Your task to perform on an android device: What's the weather today? Image 0: 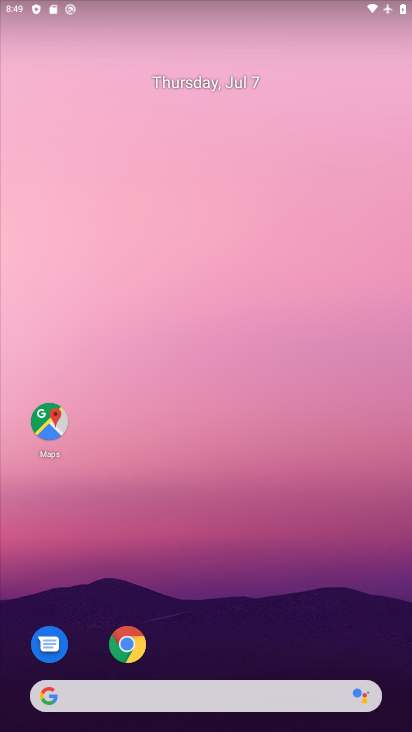
Step 0: drag from (291, 707) to (263, 85)
Your task to perform on an android device: What's the weather today? Image 1: 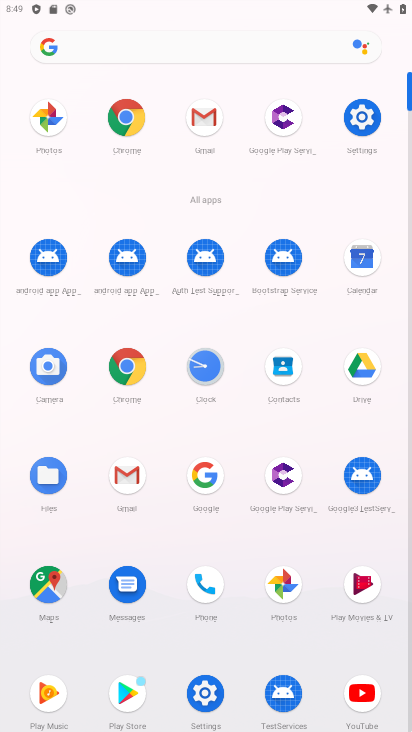
Step 1: click (125, 125)
Your task to perform on an android device: What's the weather today? Image 2: 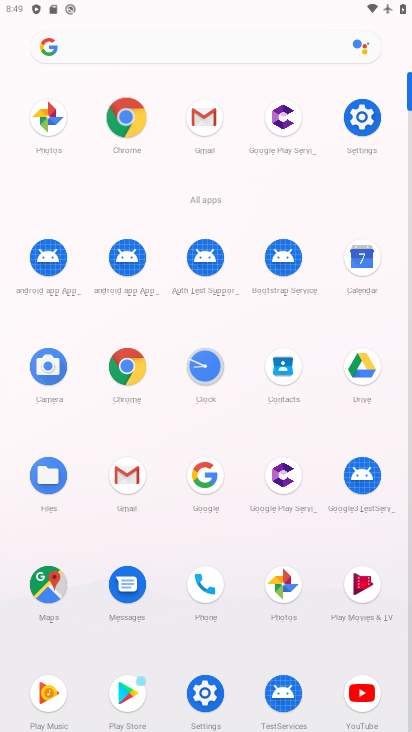
Step 2: click (130, 124)
Your task to perform on an android device: What's the weather today? Image 3: 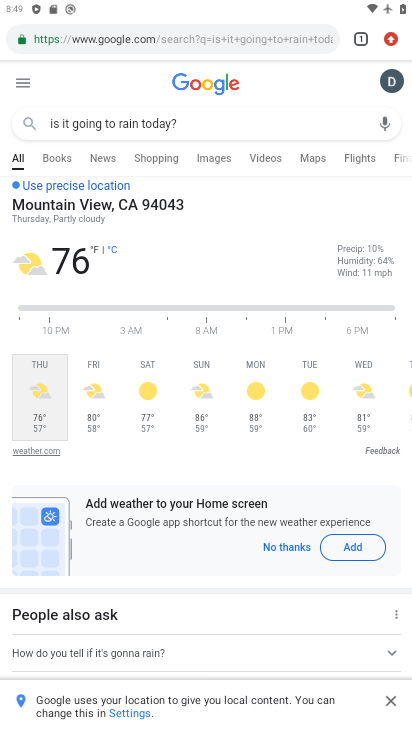
Step 3: click (187, 123)
Your task to perform on an android device: What's the weather today? Image 4: 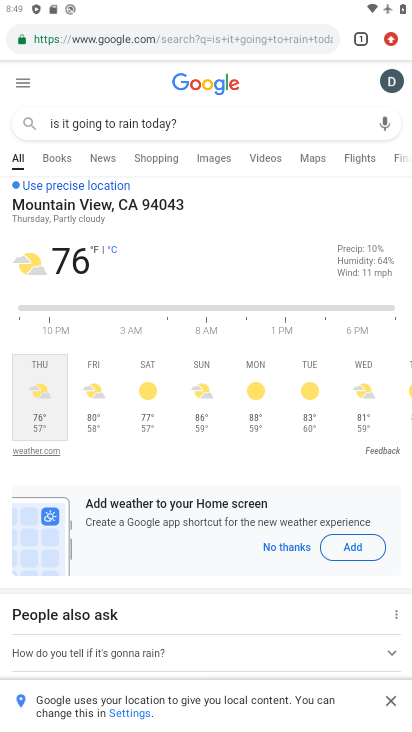
Step 4: click (172, 123)
Your task to perform on an android device: What's the weather today? Image 5: 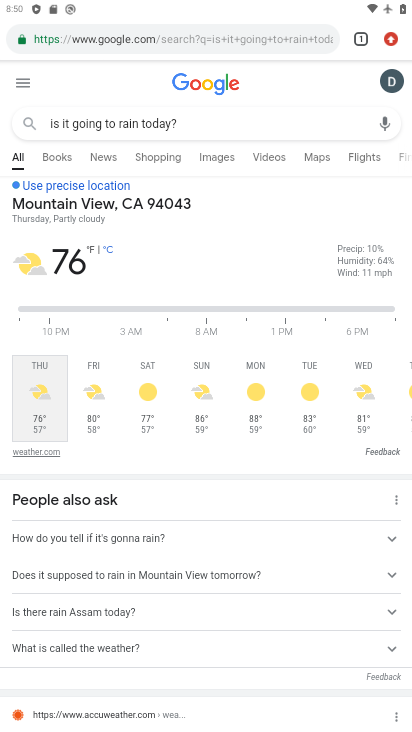
Step 5: type "whats the weather today?"
Your task to perform on an android device: What's the weather today? Image 6: 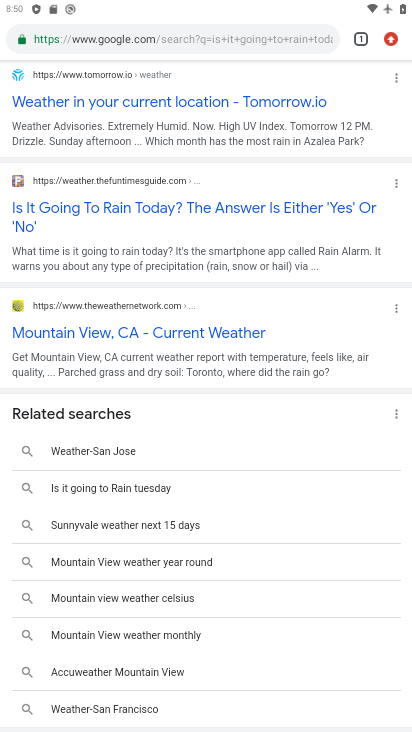
Step 6: click (154, 110)
Your task to perform on an android device: What's the weather today? Image 7: 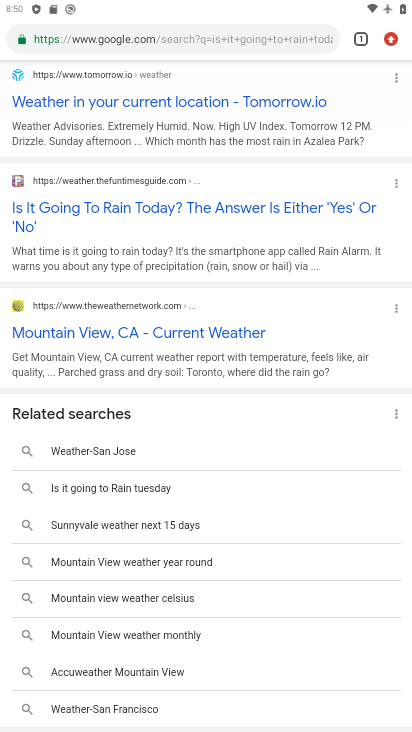
Step 7: click (155, 98)
Your task to perform on an android device: What's the weather today? Image 8: 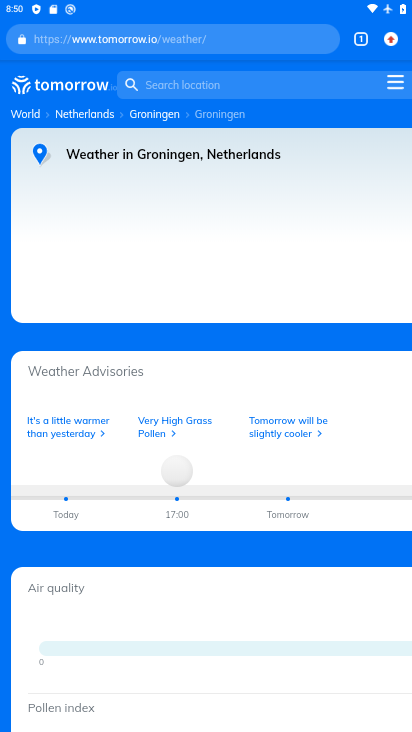
Step 8: drag from (230, 486) to (184, 257)
Your task to perform on an android device: What's the weather today? Image 9: 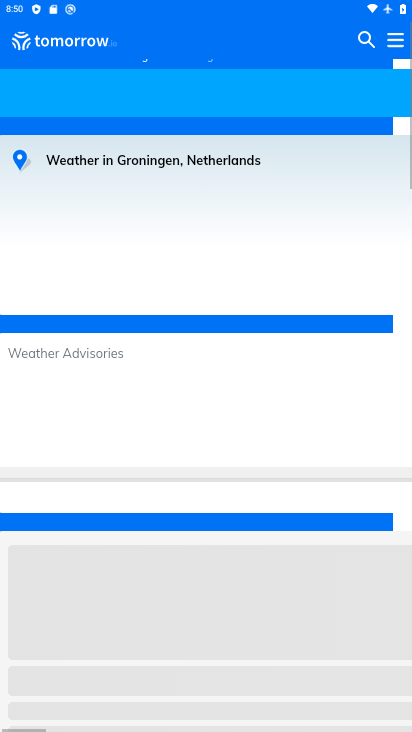
Step 9: drag from (270, 442) to (276, 525)
Your task to perform on an android device: What's the weather today? Image 10: 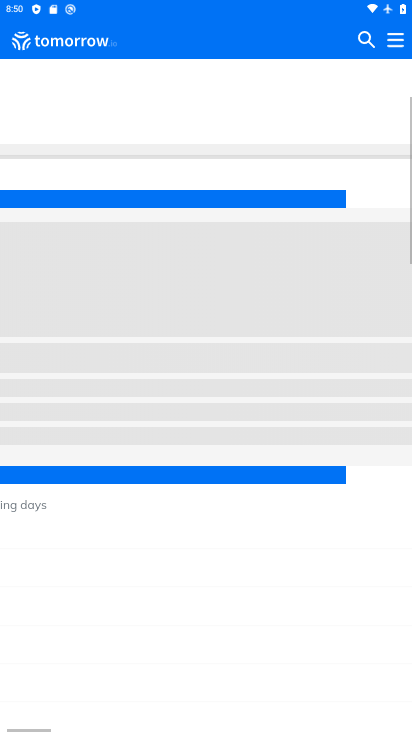
Step 10: drag from (202, 179) to (335, 419)
Your task to perform on an android device: What's the weather today? Image 11: 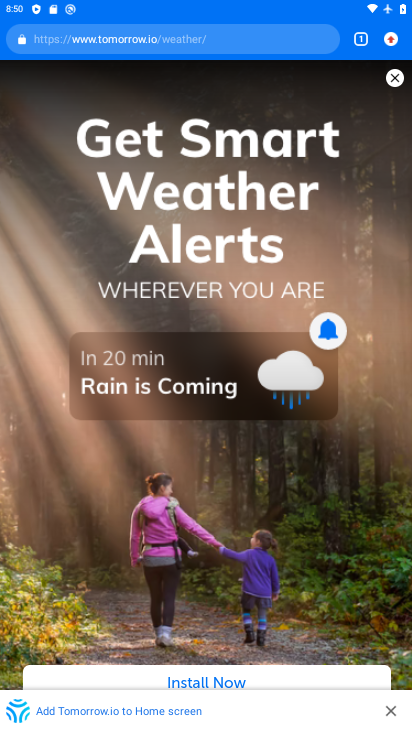
Step 11: press back button
Your task to perform on an android device: What's the weather today? Image 12: 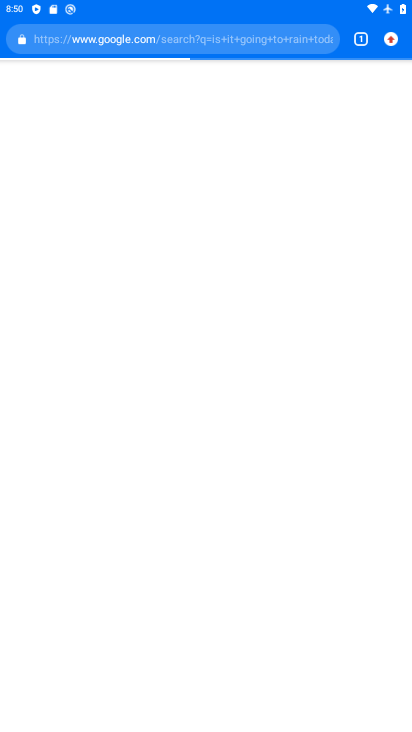
Step 12: drag from (279, 608) to (258, 130)
Your task to perform on an android device: What's the weather today? Image 13: 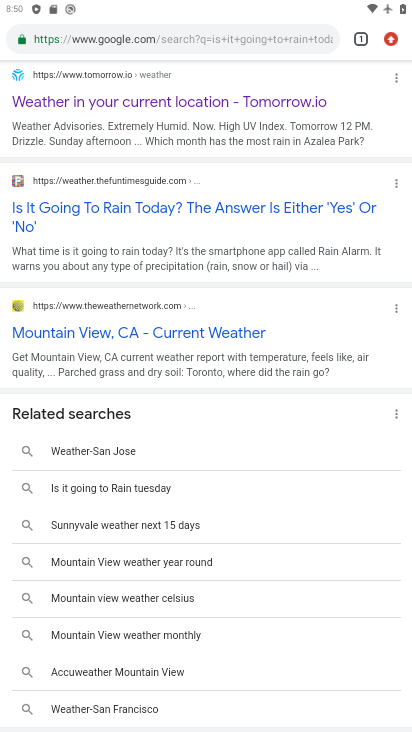
Step 13: press home button
Your task to perform on an android device: What's the weather today? Image 14: 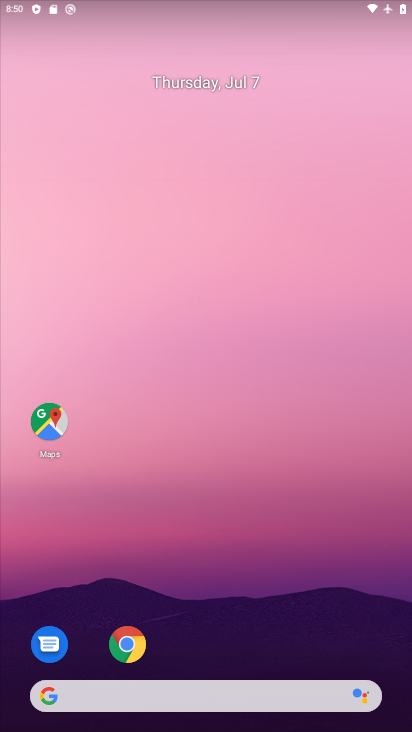
Step 14: drag from (274, 663) to (221, 174)
Your task to perform on an android device: What's the weather today? Image 15: 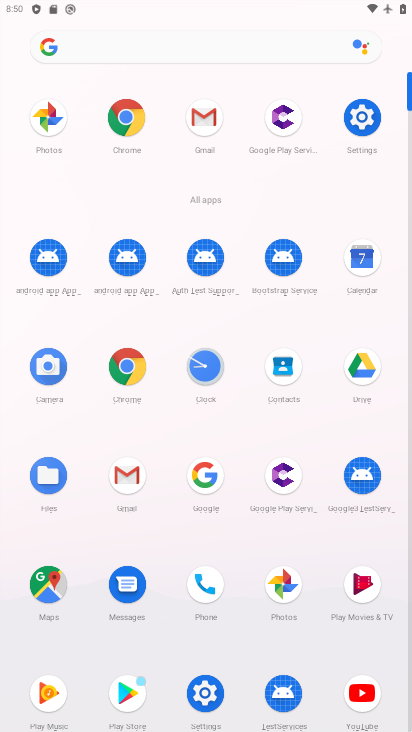
Step 15: click (359, 122)
Your task to perform on an android device: What's the weather today? Image 16: 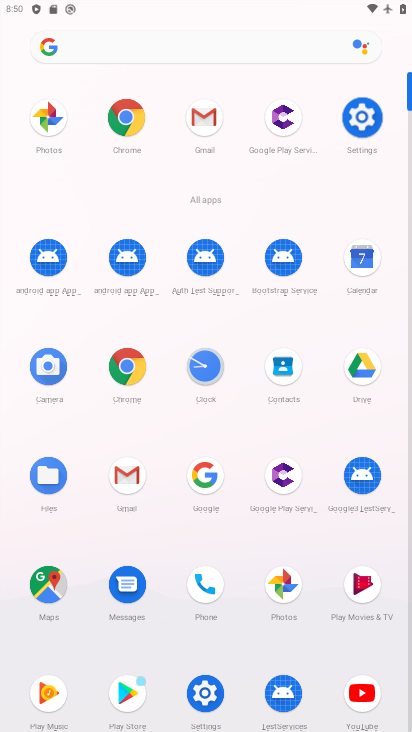
Step 16: click (358, 123)
Your task to perform on an android device: What's the weather today? Image 17: 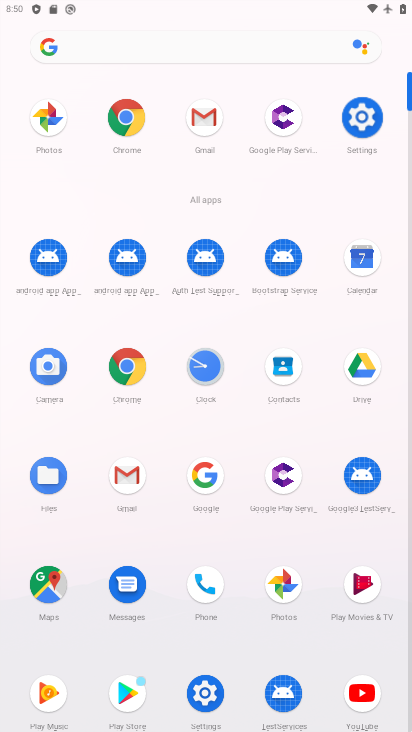
Step 17: click (358, 123)
Your task to perform on an android device: What's the weather today? Image 18: 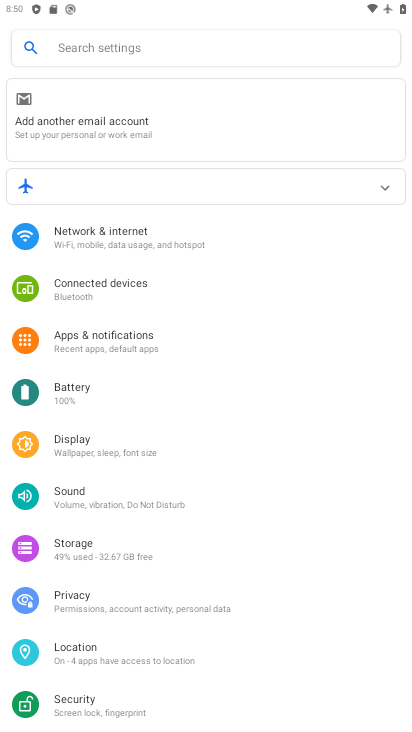
Step 18: press back button
Your task to perform on an android device: What's the weather today? Image 19: 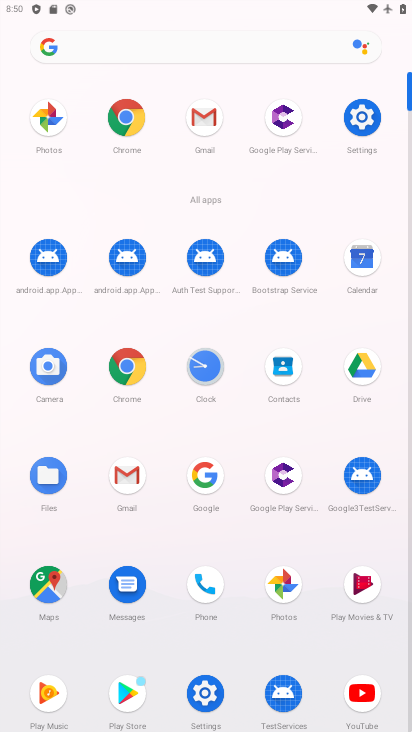
Step 19: click (127, 120)
Your task to perform on an android device: What's the weather today? Image 20: 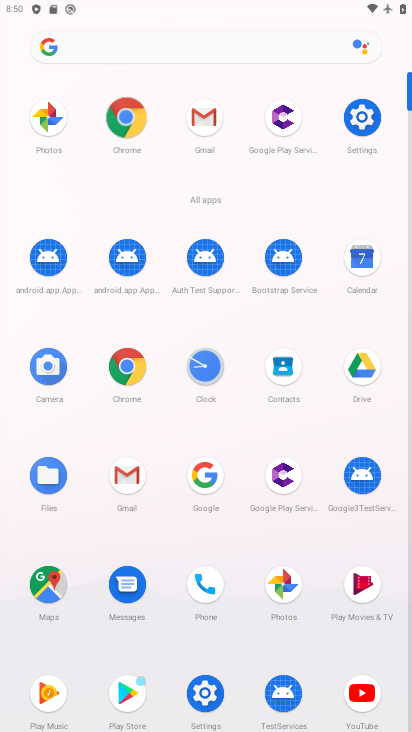
Step 20: click (127, 120)
Your task to perform on an android device: What's the weather today? Image 21: 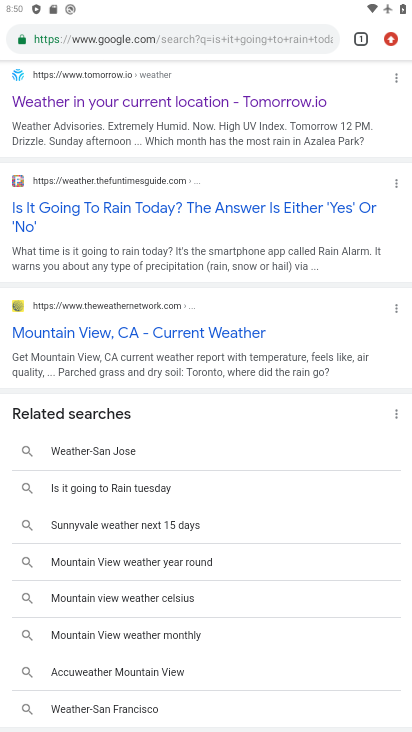
Step 21: click (127, 201)
Your task to perform on an android device: What's the weather today? Image 22: 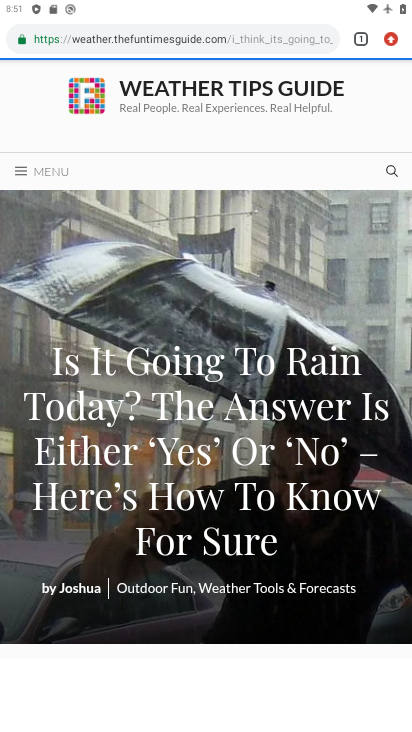
Step 22: task complete